Your task to perform on an android device: Open the calendar app, open the side menu, and click the "Day" option Image 0: 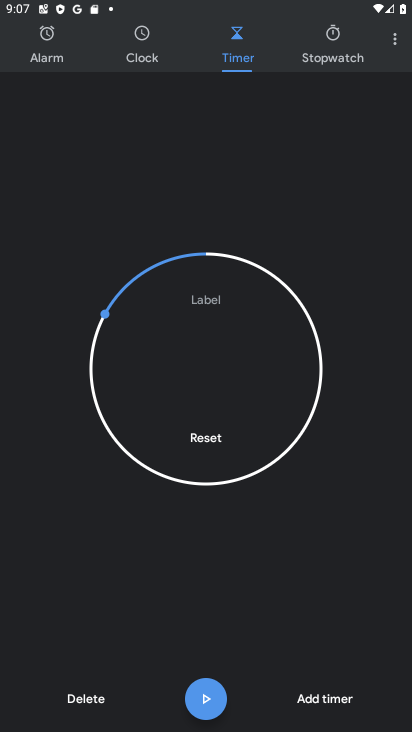
Step 0: press back button
Your task to perform on an android device: Open the calendar app, open the side menu, and click the "Day" option Image 1: 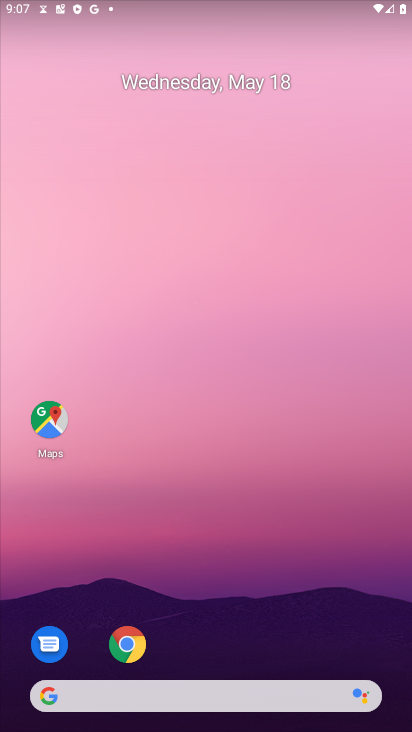
Step 1: drag from (253, 623) to (212, 146)
Your task to perform on an android device: Open the calendar app, open the side menu, and click the "Day" option Image 2: 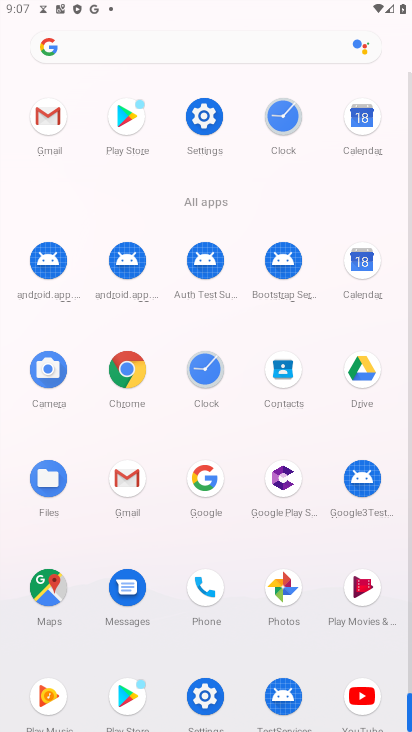
Step 2: click (362, 268)
Your task to perform on an android device: Open the calendar app, open the side menu, and click the "Day" option Image 3: 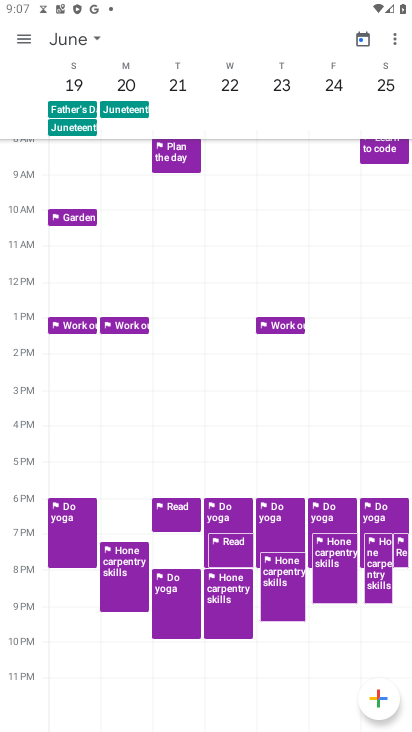
Step 3: click (20, 40)
Your task to perform on an android device: Open the calendar app, open the side menu, and click the "Day" option Image 4: 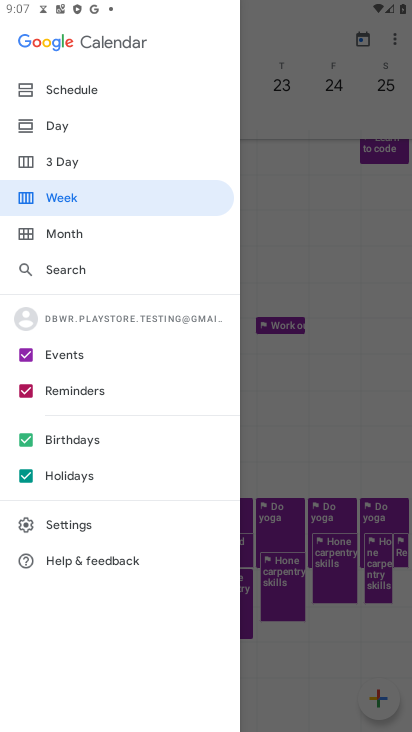
Step 4: click (51, 121)
Your task to perform on an android device: Open the calendar app, open the side menu, and click the "Day" option Image 5: 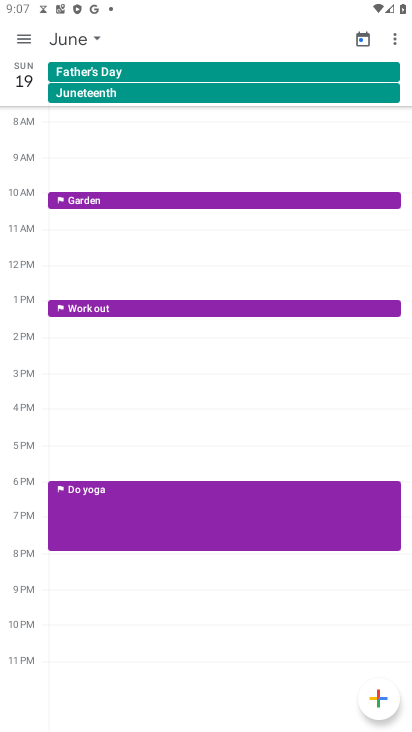
Step 5: task complete